Your task to perform on an android device: check google app version Image 0: 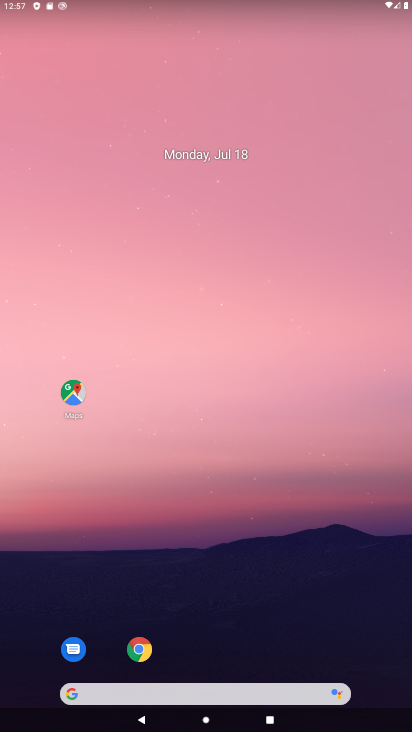
Step 0: drag from (203, 670) to (145, 229)
Your task to perform on an android device: check google app version Image 1: 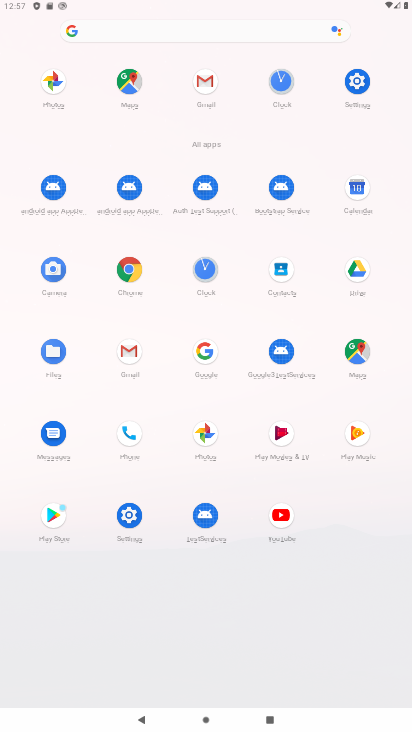
Step 1: click (203, 356)
Your task to perform on an android device: check google app version Image 2: 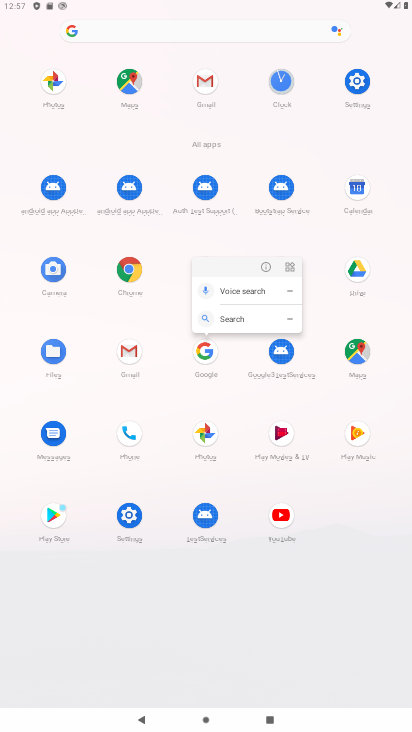
Step 2: click (264, 266)
Your task to perform on an android device: check google app version Image 3: 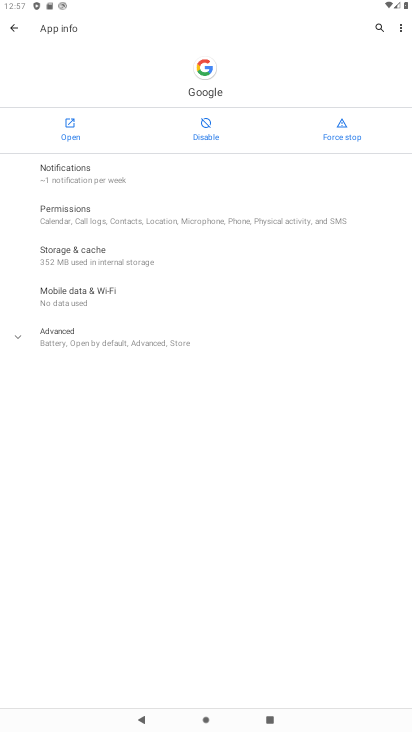
Step 3: click (50, 345)
Your task to perform on an android device: check google app version Image 4: 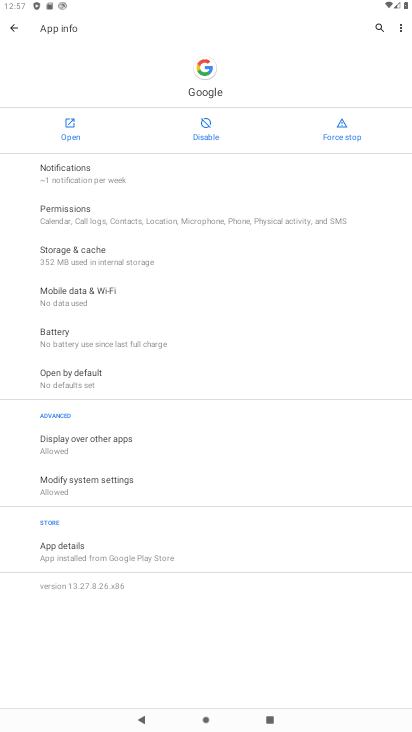
Step 4: task complete